Your task to perform on an android device: Open network settings Image 0: 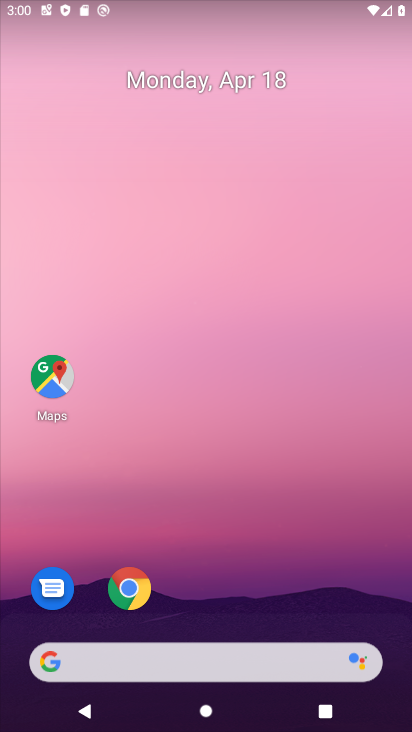
Step 0: drag from (200, 6) to (154, 586)
Your task to perform on an android device: Open network settings Image 1: 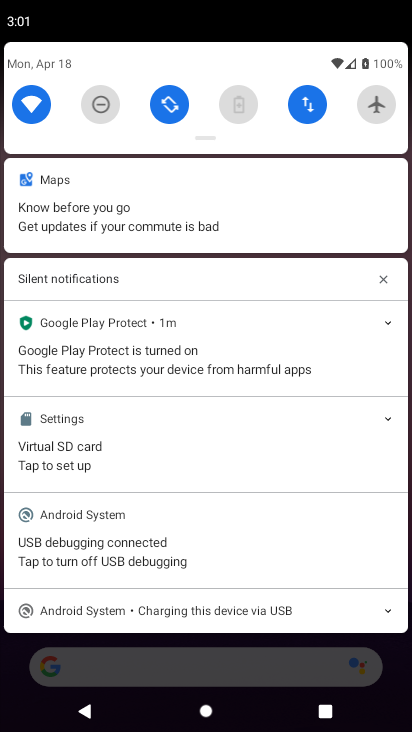
Step 1: drag from (221, 76) to (206, 681)
Your task to perform on an android device: Open network settings Image 2: 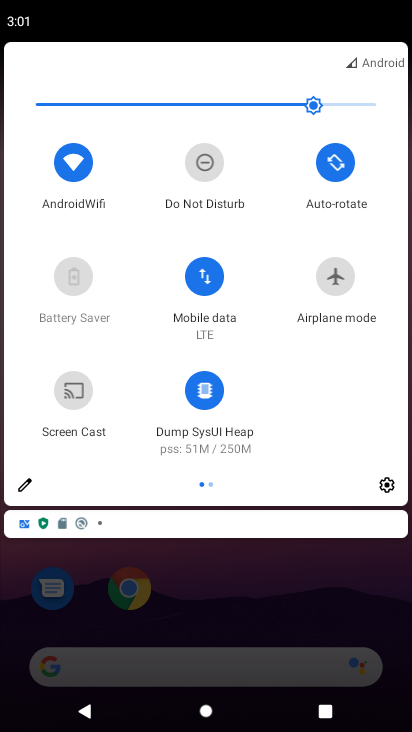
Step 2: click (375, 476)
Your task to perform on an android device: Open network settings Image 3: 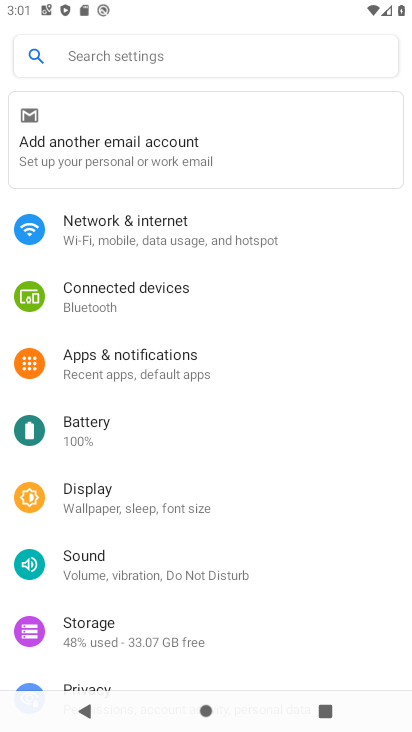
Step 3: click (218, 221)
Your task to perform on an android device: Open network settings Image 4: 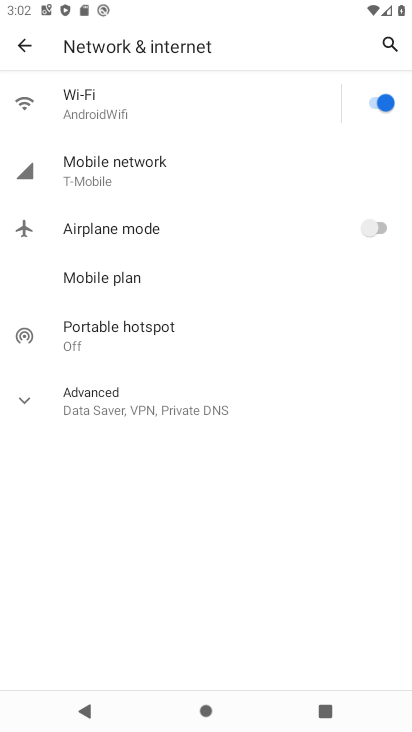
Step 4: click (258, 192)
Your task to perform on an android device: Open network settings Image 5: 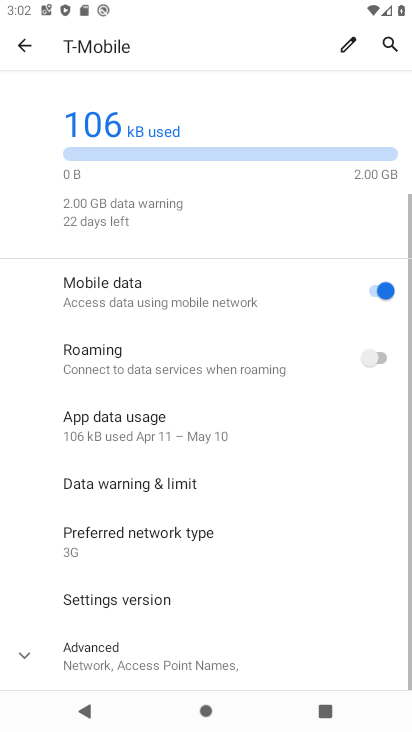
Step 5: task complete